Your task to perform on an android device: Search for "razer thresher" on newegg, select the first entry, add it to the cart, then select checkout. Image 0: 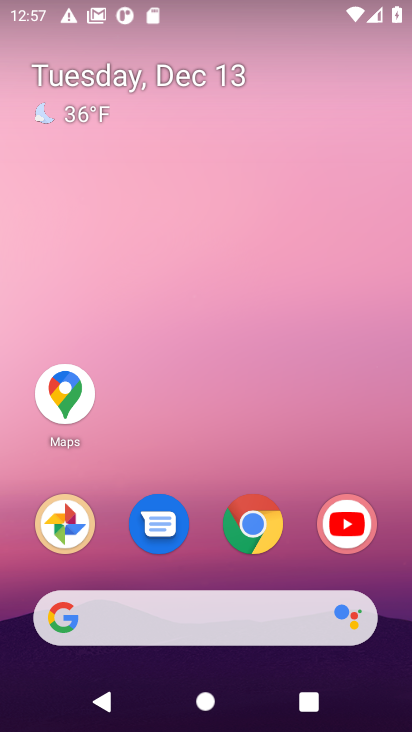
Step 0: click (245, 531)
Your task to perform on an android device: Search for "razer thresher" on newegg, select the first entry, add it to the cart, then select checkout. Image 1: 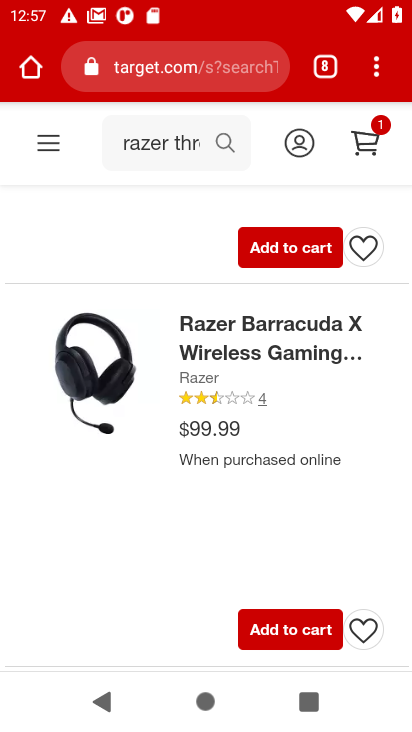
Step 1: click (171, 68)
Your task to perform on an android device: Search for "razer thresher" on newegg, select the first entry, add it to the cart, then select checkout. Image 2: 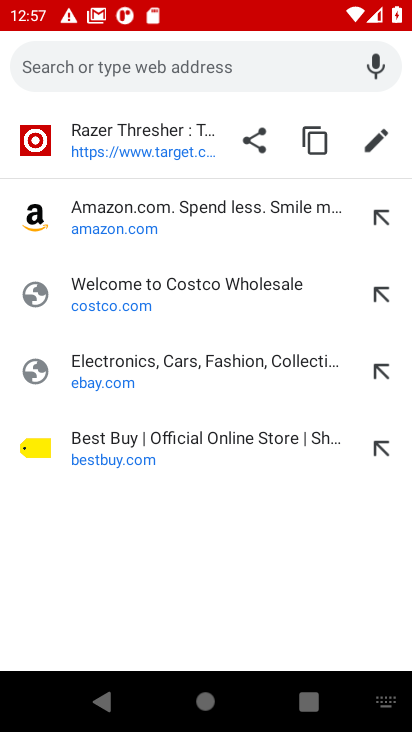
Step 2: type "newegg.com"
Your task to perform on an android device: Search for "razer thresher" on newegg, select the first entry, add it to the cart, then select checkout. Image 3: 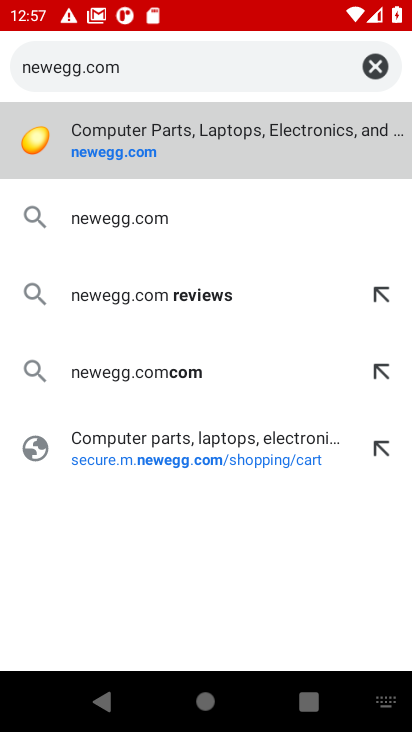
Step 3: click (104, 157)
Your task to perform on an android device: Search for "razer thresher" on newegg, select the first entry, add it to the cart, then select checkout. Image 4: 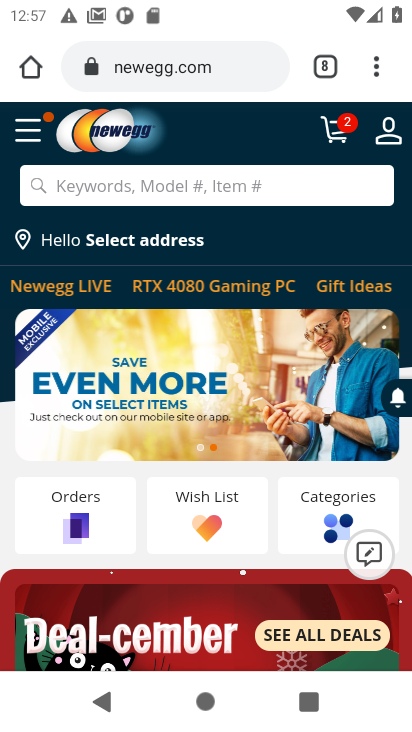
Step 4: click (71, 185)
Your task to perform on an android device: Search for "razer thresher" on newegg, select the first entry, add it to the cart, then select checkout. Image 5: 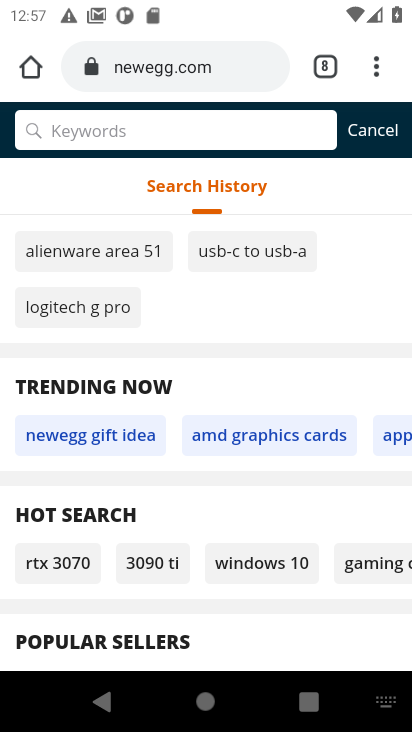
Step 5: type "razer thresher"
Your task to perform on an android device: Search for "razer thresher" on newegg, select the first entry, add it to the cart, then select checkout. Image 6: 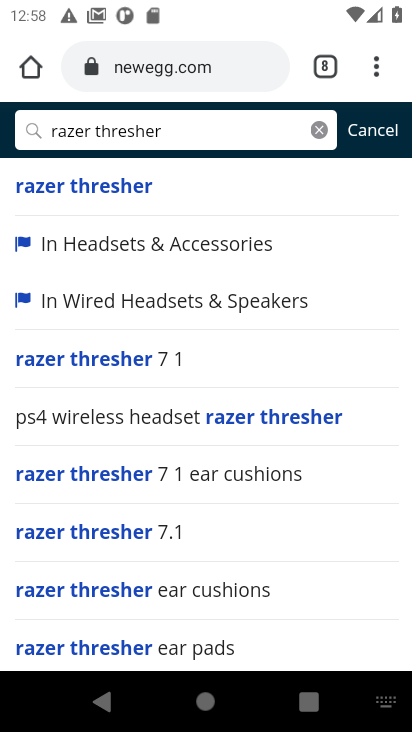
Step 6: click (91, 192)
Your task to perform on an android device: Search for "razer thresher" on newegg, select the first entry, add it to the cart, then select checkout. Image 7: 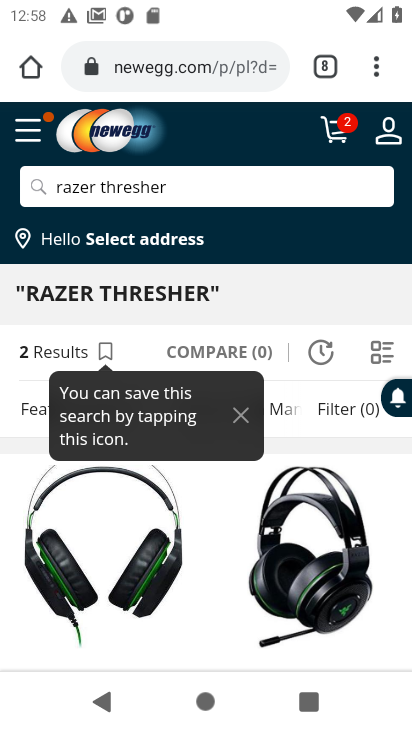
Step 7: task complete